Your task to perform on an android device: Open Google Maps Image 0: 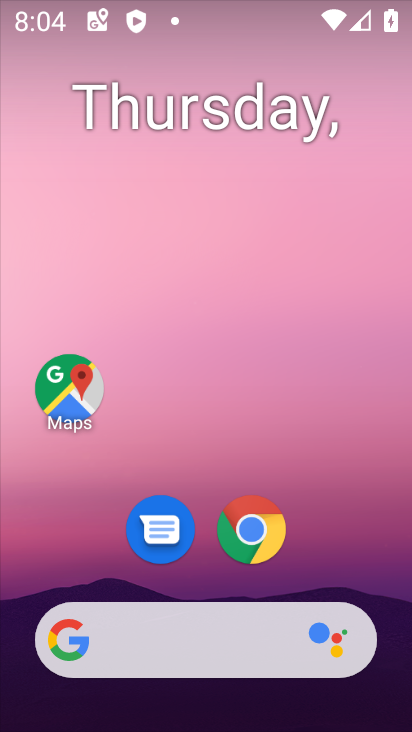
Step 0: drag from (214, 721) to (215, 76)
Your task to perform on an android device: Open Google Maps Image 1: 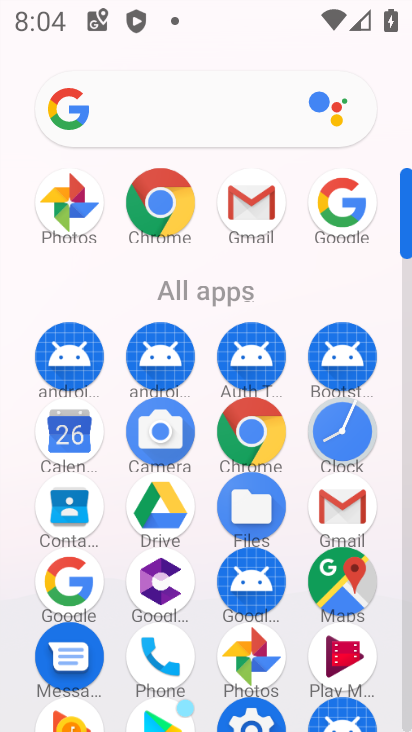
Step 1: click (351, 575)
Your task to perform on an android device: Open Google Maps Image 2: 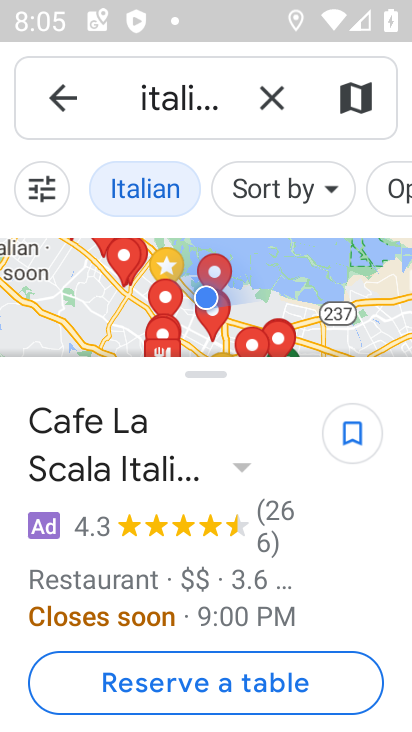
Step 2: task complete